Your task to perform on an android device: Search for Italian restaurants on Maps Image 0: 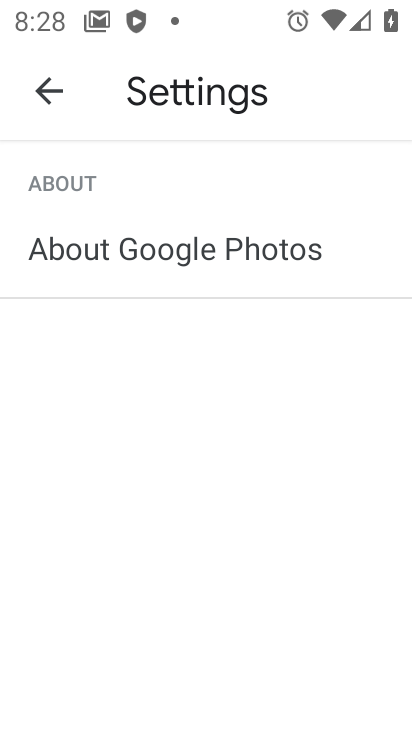
Step 0: press home button
Your task to perform on an android device: Search for Italian restaurants on Maps Image 1: 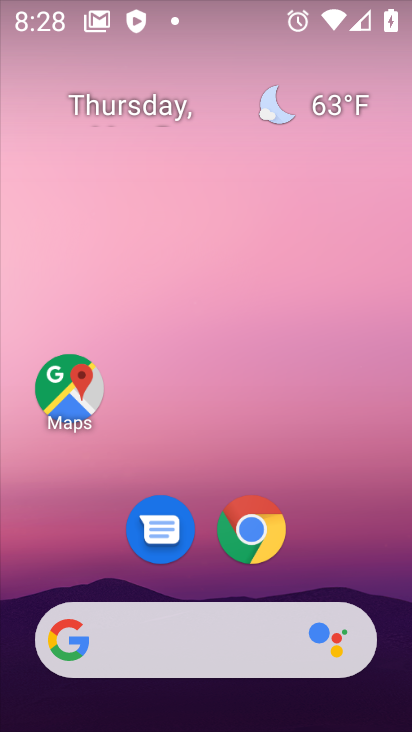
Step 1: click (73, 405)
Your task to perform on an android device: Search for Italian restaurants on Maps Image 2: 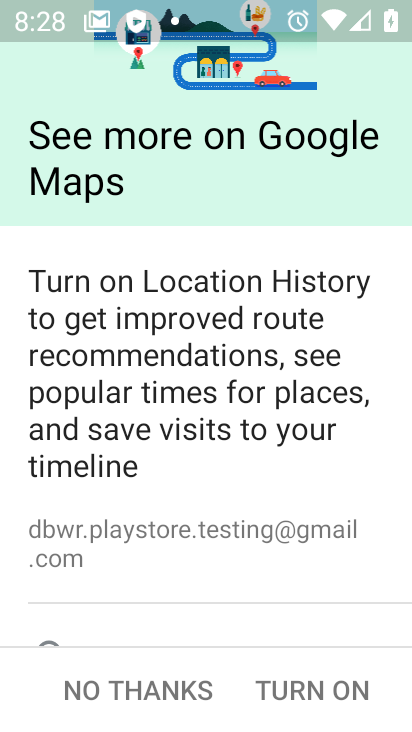
Step 2: click (289, 686)
Your task to perform on an android device: Search for Italian restaurants on Maps Image 3: 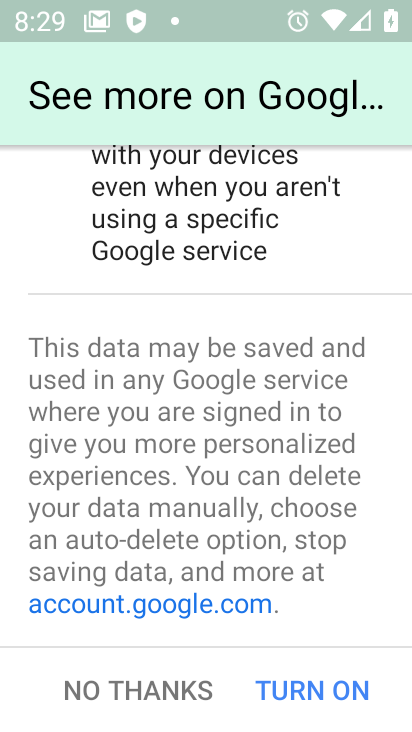
Step 3: click (339, 684)
Your task to perform on an android device: Search for Italian restaurants on Maps Image 4: 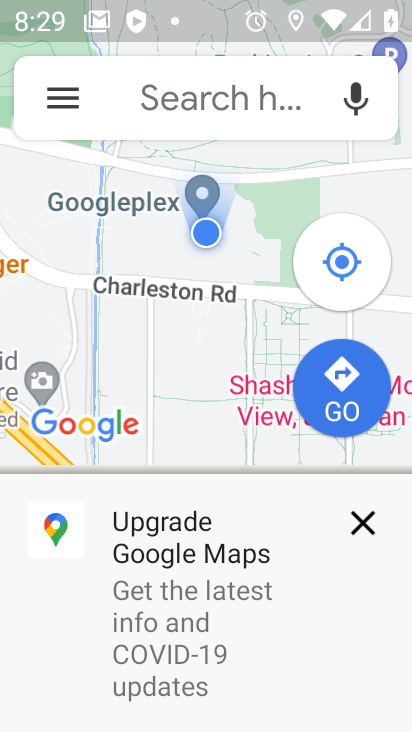
Step 4: click (214, 88)
Your task to perform on an android device: Search for Italian restaurants on Maps Image 5: 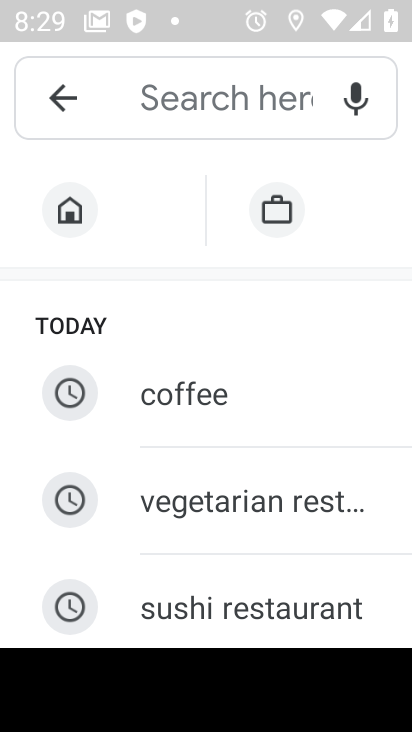
Step 5: type "Italian restaurants"
Your task to perform on an android device: Search for Italian restaurants on Maps Image 6: 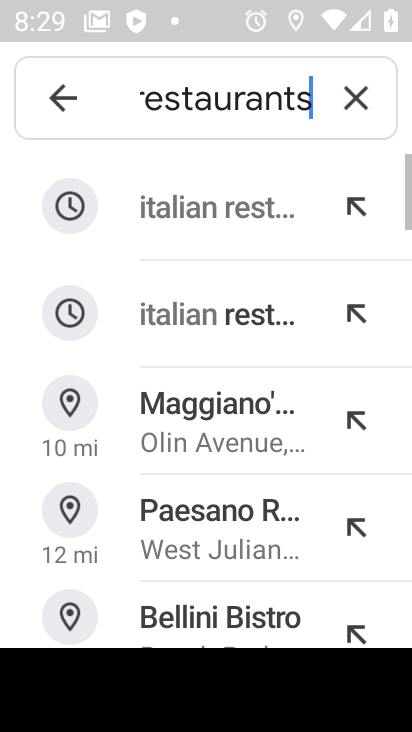
Step 6: click (185, 217)
Your task to perform on an android device: Search for Italian restaurants on Maps Image 7: 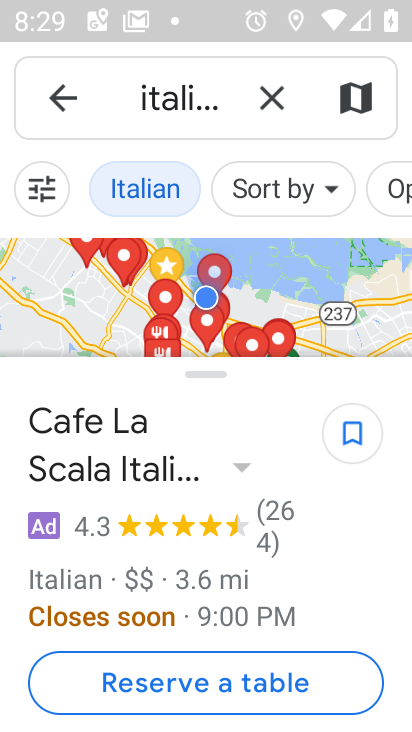
Step 7: task complete